Your task to perform on an android device: Open Maps and search for coffee Image 0: 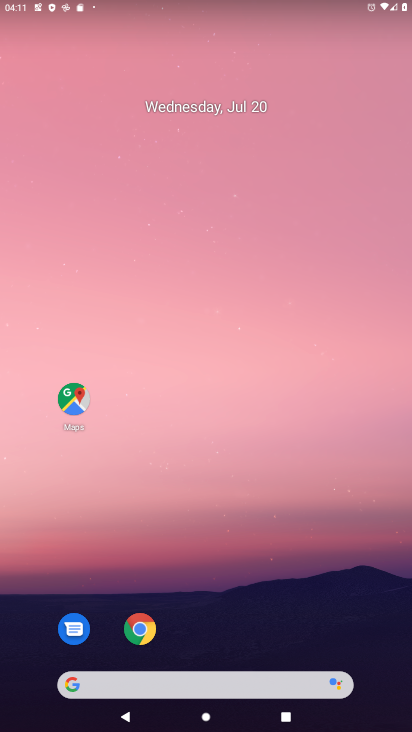
Step 0: drag from (365, 660) to (320, 96)
Your task to perform on an android device: Open Maps and search for coffee Image 1: 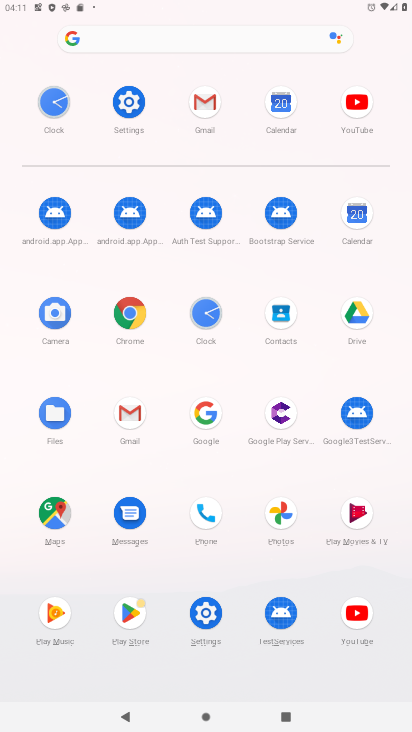
Step 1: click (54, 514)
Your task to perform on an android device: Open Maps and search for coffee Image 2: 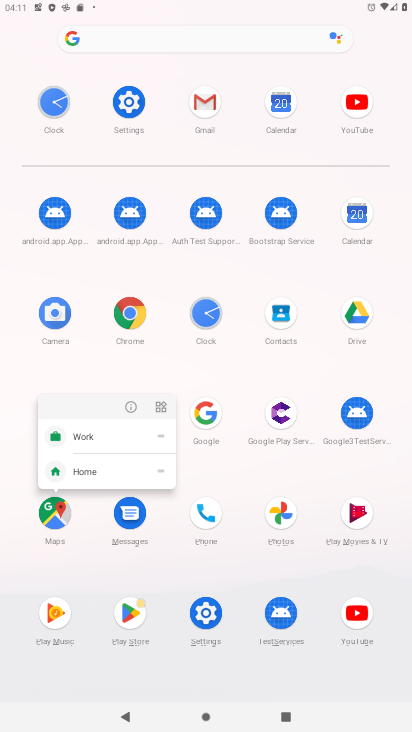
Step 2: click (53, 515)
Your task to perform on an android device: Open Maps and search for coffee Image 3: 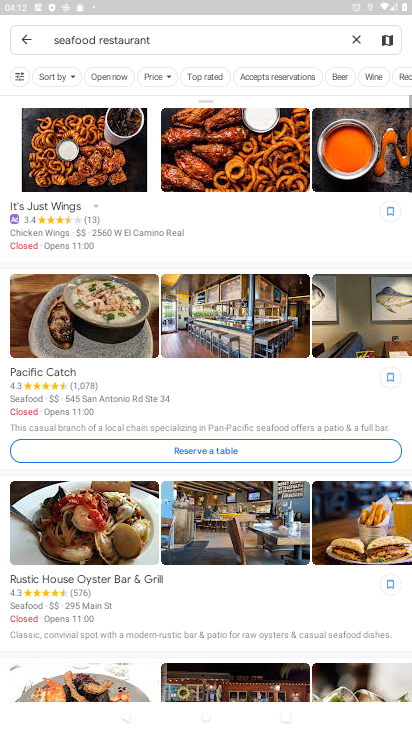
Step 3: click (355, 36)
Your task to perform on an android device: Open Maps and search for coffee Image 4: 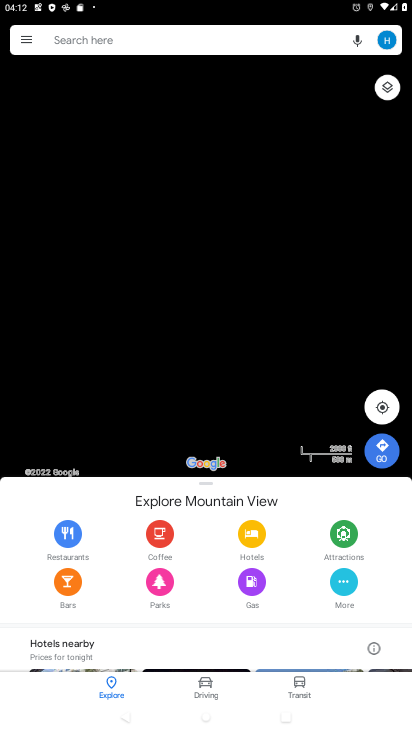
Step 4: click (79, 35)
Your task to perform on an android device: Open Maps and search for coffee Image 5: 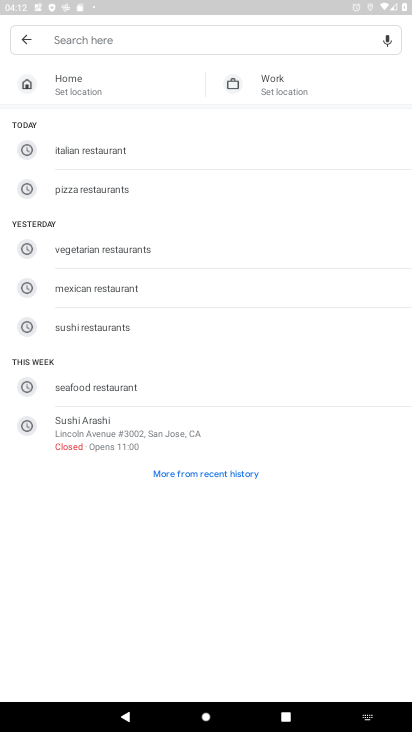
Step 5: type "coffee"
Your task to perform on an android device: Open Maps and search for coffee Image 6: 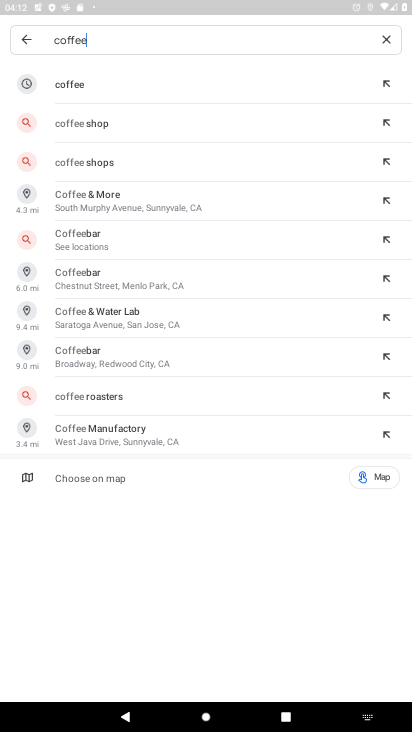
Step 6: click (70, 90)
Your task to perform on an android device: Open Maps and search for coffee Image 7: 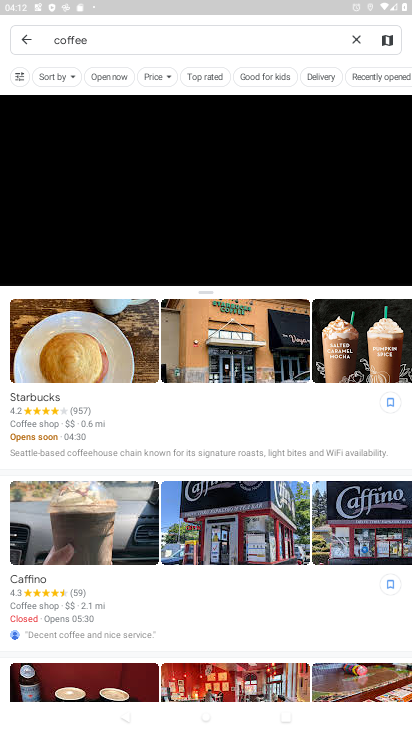
Step 7: task complete